Your task to perform on an android device: Open wifi settings Image 0: 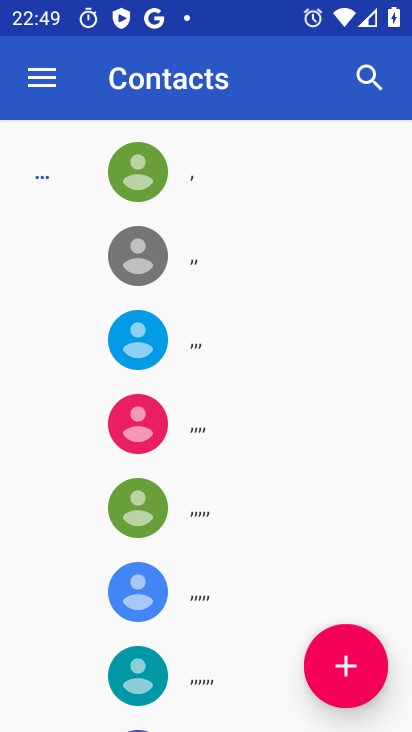
Step 0: press back button
Your task to perform on an android device: Open wifi settings Image 1: 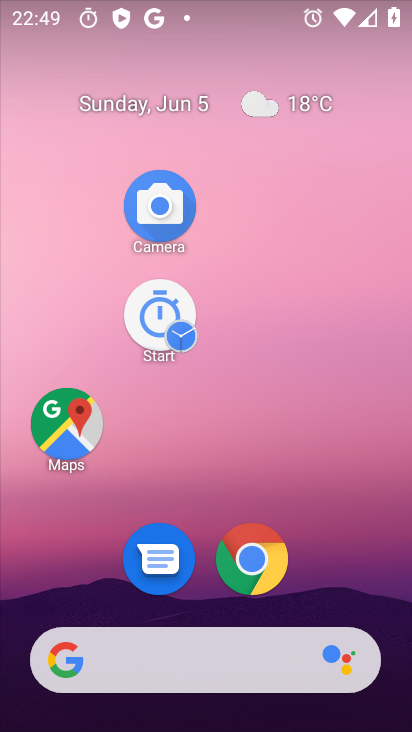
Step 1: drag from (177, 713) to (145, 281)
Your task to perform on an android device: Open wifi settings Image 2: 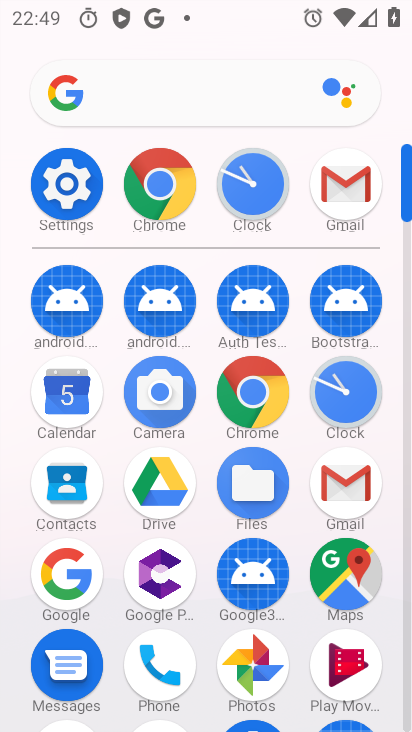
Step 2: click (70, 197)
Your task to perform on an android device: Open wifi settings Image 3: 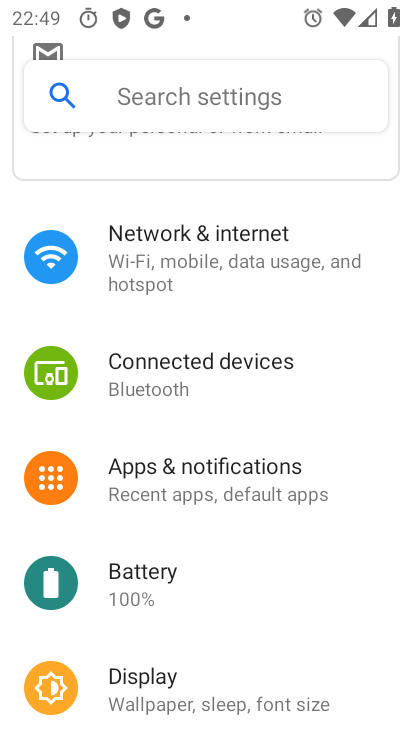
Step 3: click (189, 157)
Your task to perform on an android device: Open wifi settings Image 4: 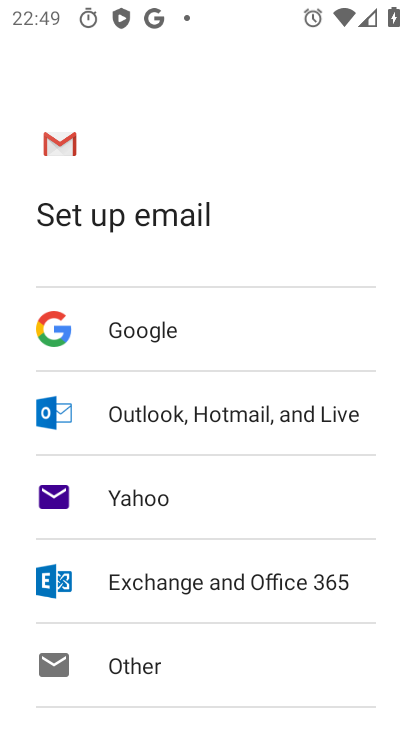
Step 4: press back button
Your task to perform on an android device: Open wifi settings Image 5: 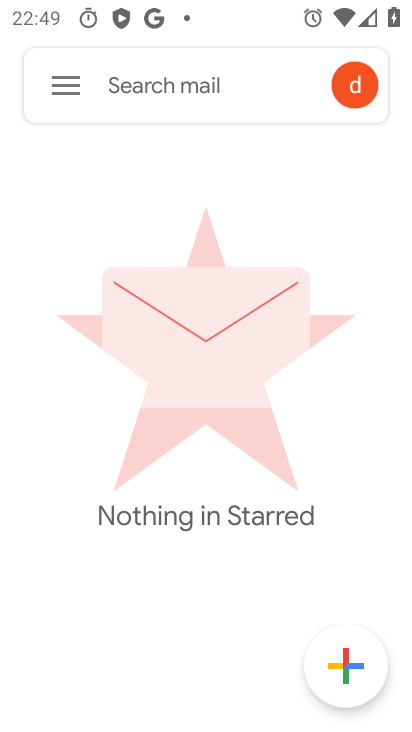
Step 5: press home button
Your task to perform on an android device: Open wifi settings Image 6: 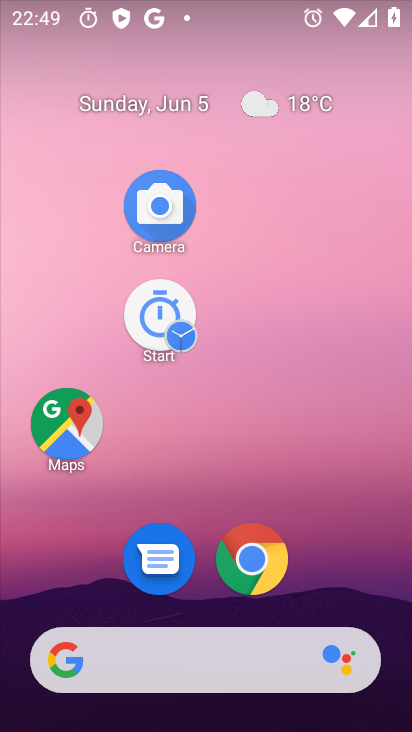
Step 6: drag from (207, 680) to (135, 109)
Your task to perform on an android device: Open wifi settings Image 7: 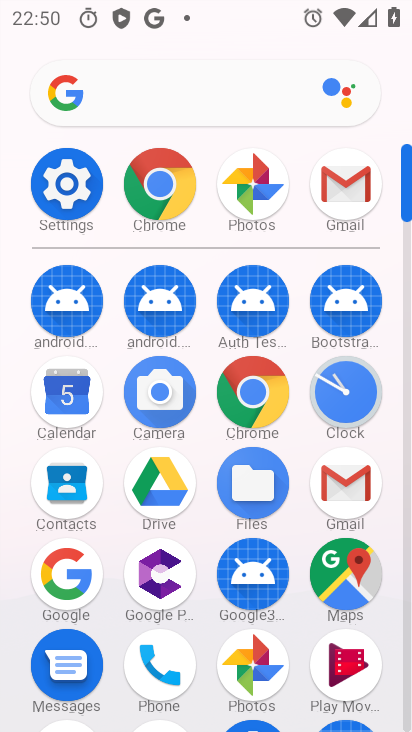
Step 7: click (76, 171)
Your task to perform on an android device: Open wifi settings Image 8: 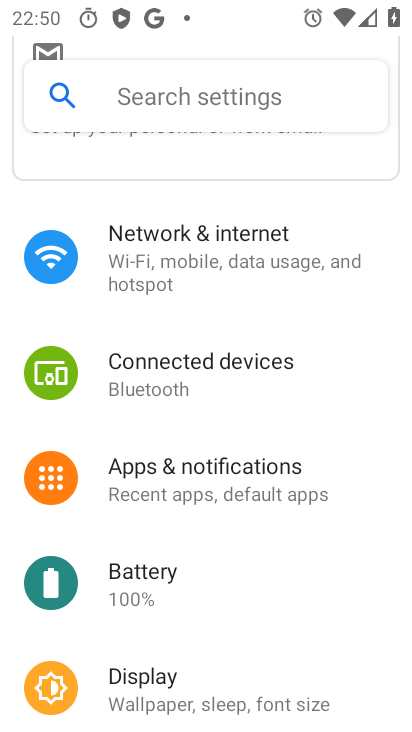
Step 8: click (171, 256)
Your task to perform on an android device: Open wifi settings Image 9: 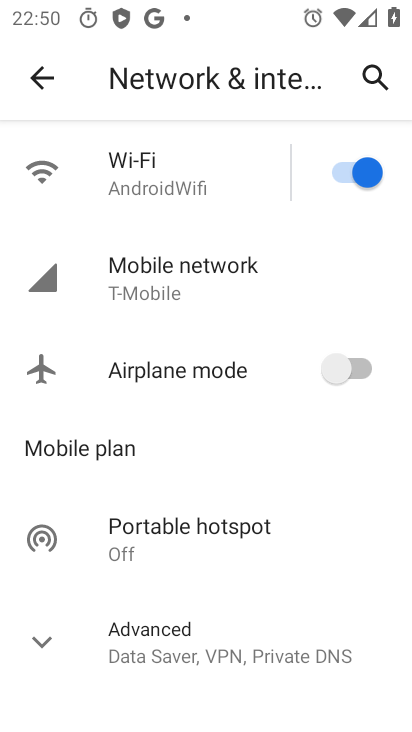
Step 9: task complete